Your task to perform on an android device: toggle improve location accuracy Image 0: 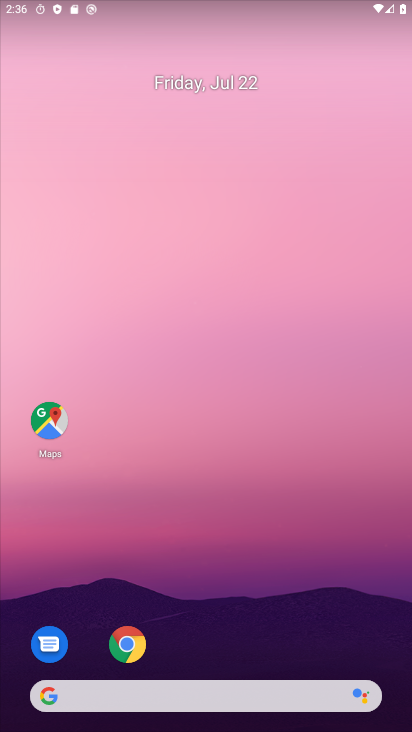
Step 0: press home button
Your task to perform on an android device: toggle improve location accuracy Image 1: 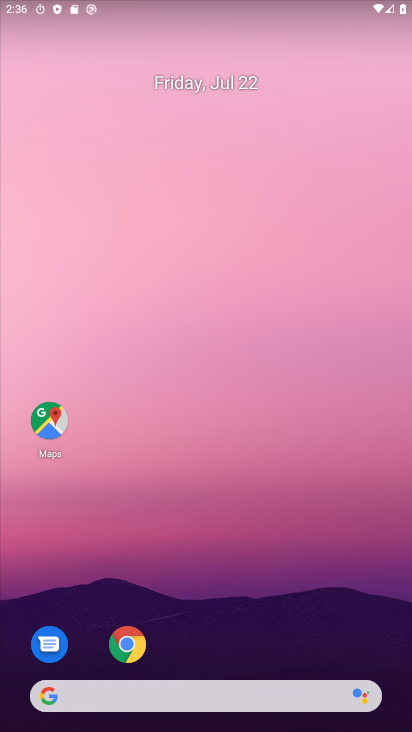
Step 1: click (41, 694)
Your task to perform on an android device: toggle improve location accuracy Image 2: 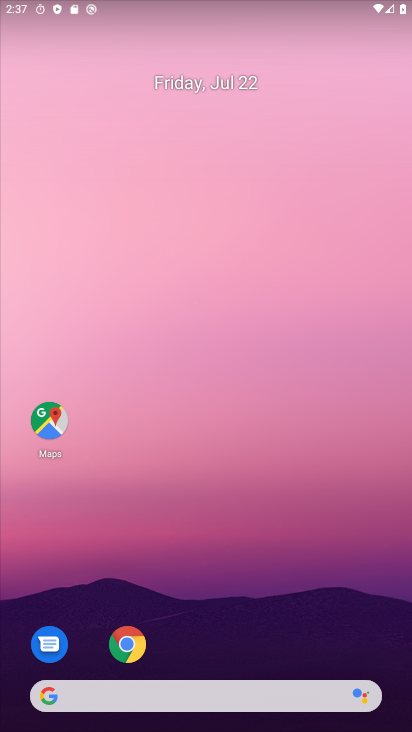
Step 2: drag from (219, 667) to (344, 86)
Your task to perform on an android device: toggle improve location accuracy Image 3: 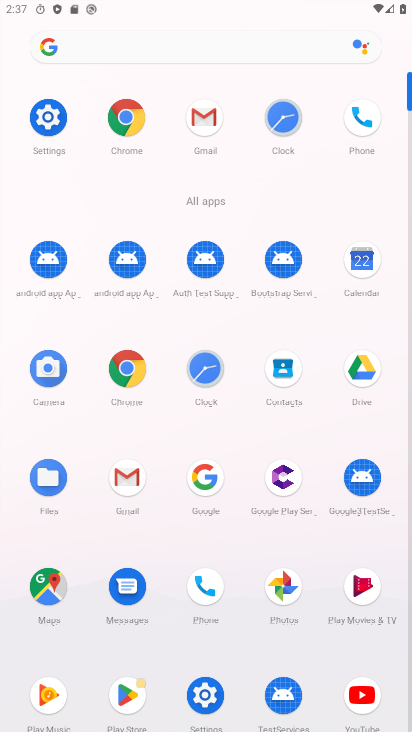
Step 3: click (40, 121)
Your task to perform on an android device: toggle improve location accuracy Image 4: 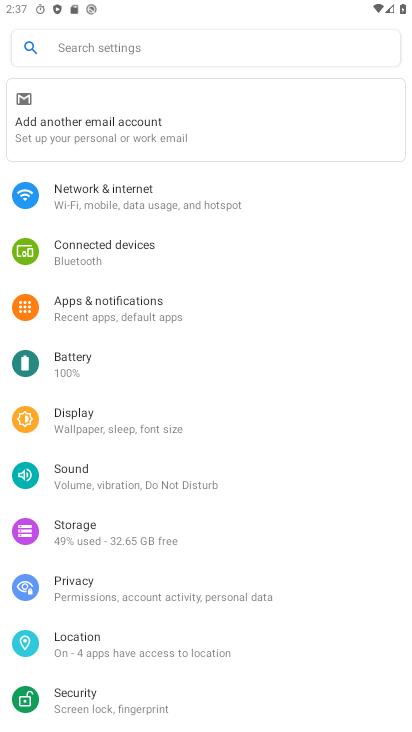
Step 4: click (72, 646)
Your task to perform on an android device: toggle improve location accuracy Image 5: 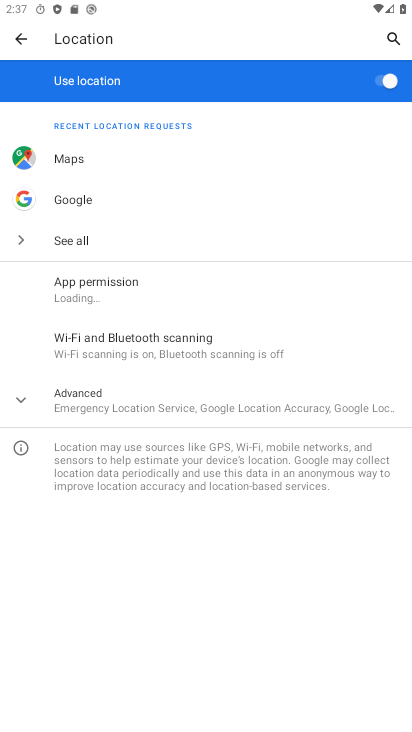
Step 5: click (127, 412)
Your task to perform on an android device: toggle improve location accuracy Image 6: 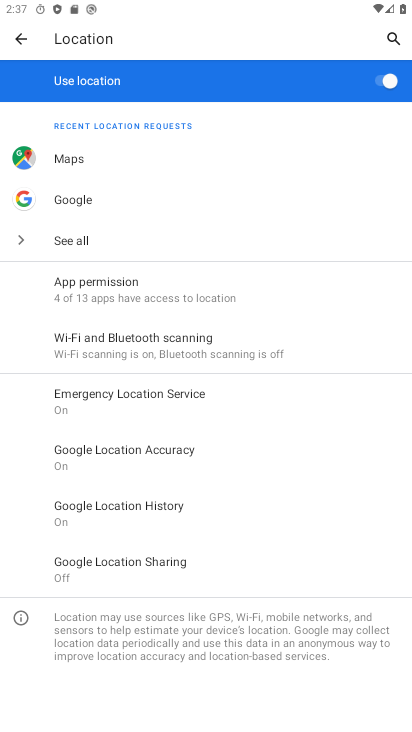
Step 6: click (143, 455)
Your task to perform on an android device: toggle improve location accuracy Image 7: 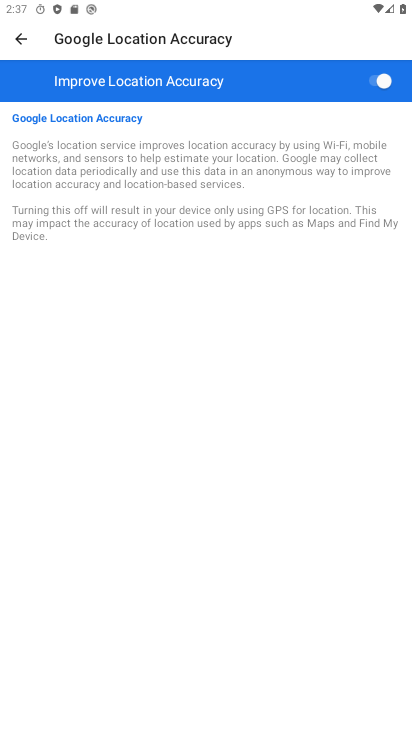
Step 7: click (380, 82)
Your task to perform on an android device: toggle improve location accuracy Image 8: 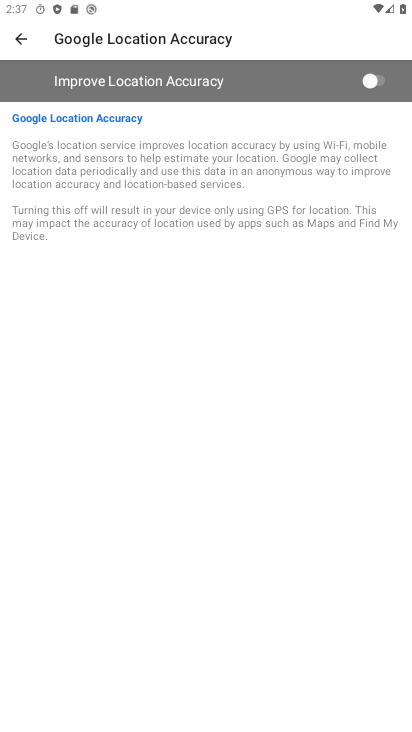
Step 8: task complete